Your task to perform on an android device: Go to internet settings Image 0: 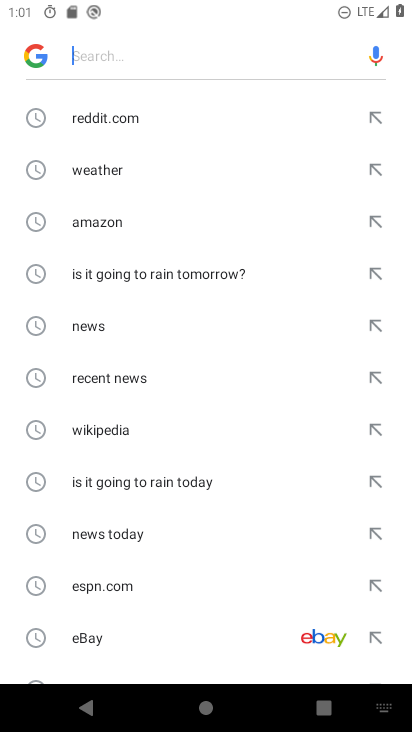
Step 0: press home button
Your task to perform on an android device: Go to internet settings Image 1: 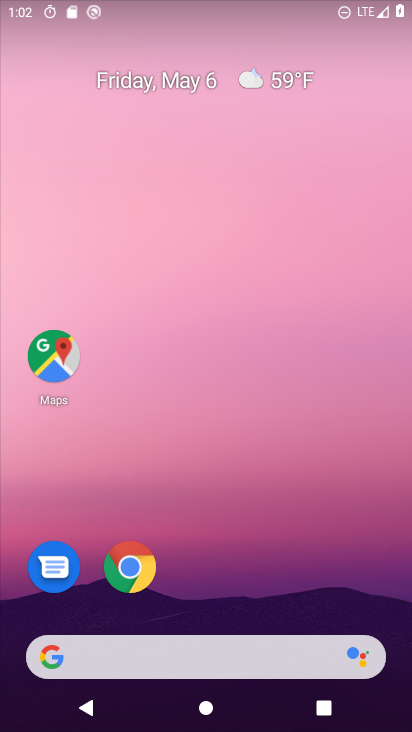
Step 1: drag from (286, 620) to (284, 0)
Your task to perform on an android device: Go to internet settings Image 2: 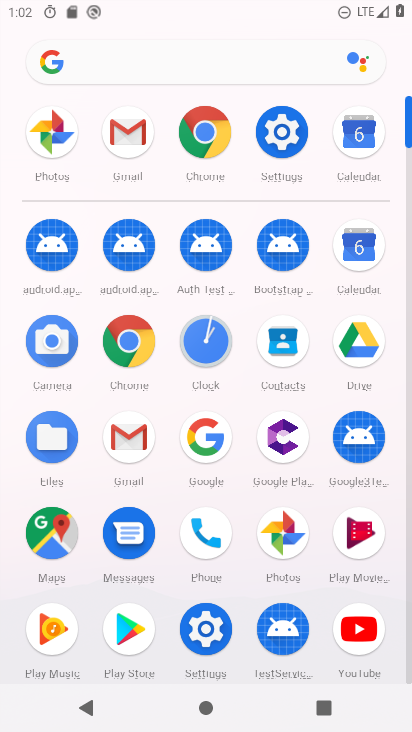
Step 2: click (283, 130)
Your task to perform on an android device: Go to internet settings Image 3: 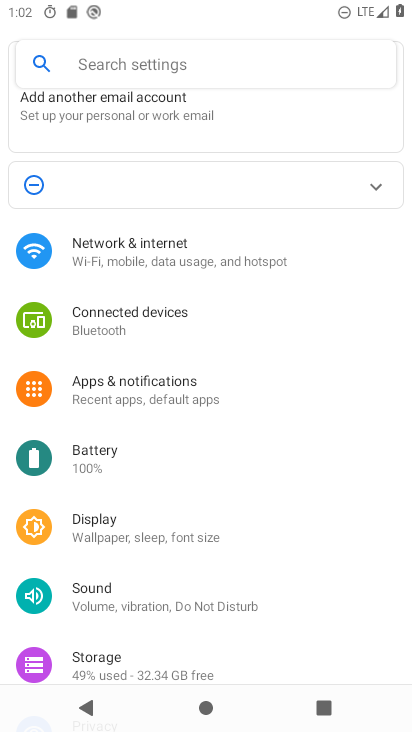
Step 3: click (182, 264)
Your task to perform on an android device: Go to internet settings Image 4: 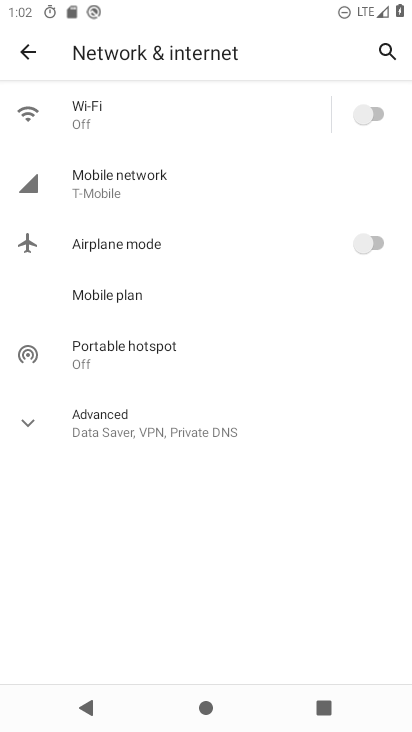
Step 4: click (101, 352)
Your task to perform on an android device: Go to internet settings Image 5: 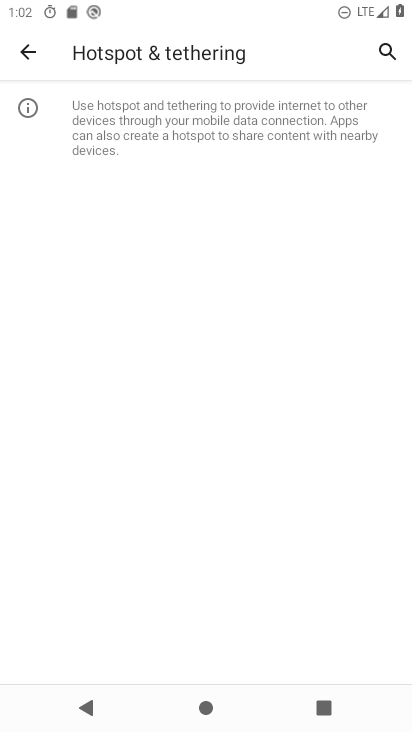
Step 5: click (32, 52)
Your task to perform on an android device: Go to internet settings Image 6: 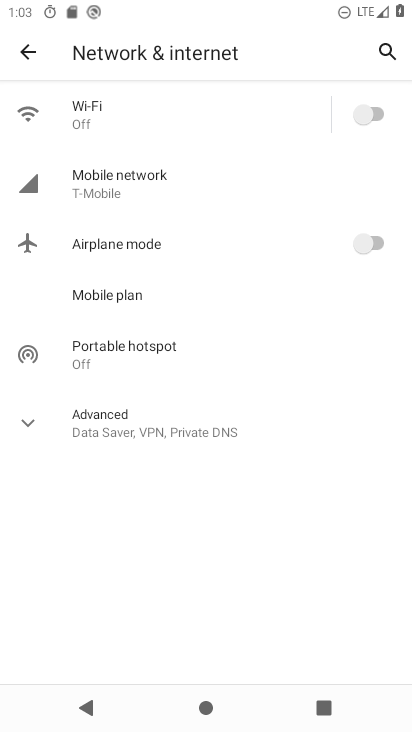
Step 6: task complete